Your task to perform on an android device: What's the weather? Image 0: 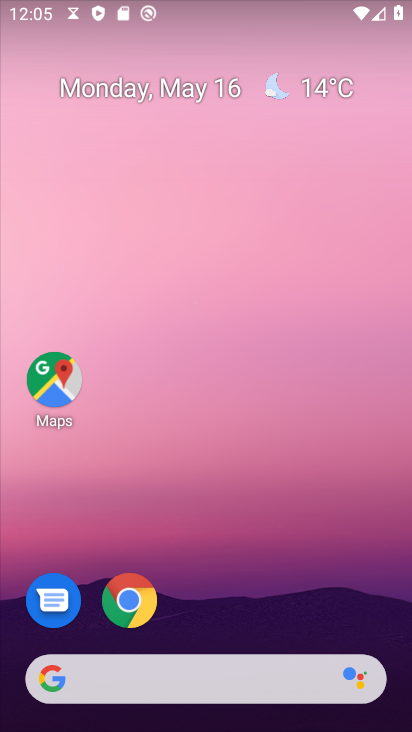
Step 0: drag from (243, 595) to (185, 18)
Your task to perform on an android device: What's the weather? Image 1: 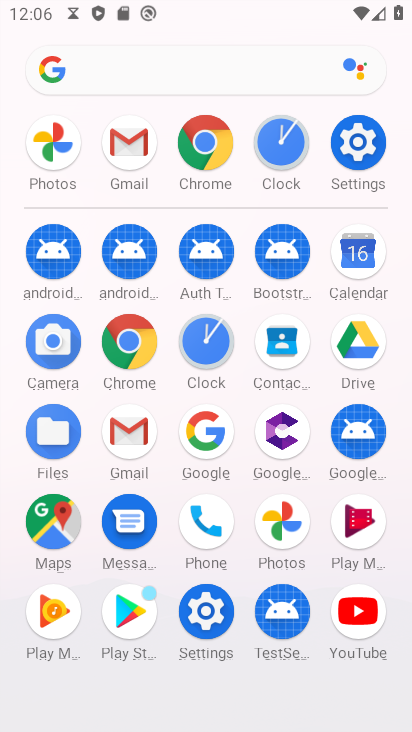
Step 1: drag from (15, 568) to (24, 297)
Your task to perform on an android device: What's the weather? Image 2: 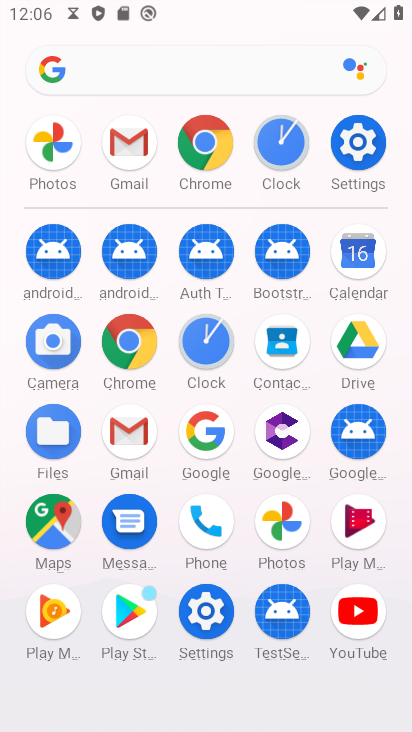
Step 2: click (129, 342)
Your task to perform on an android device: What's the weather? Image 3: 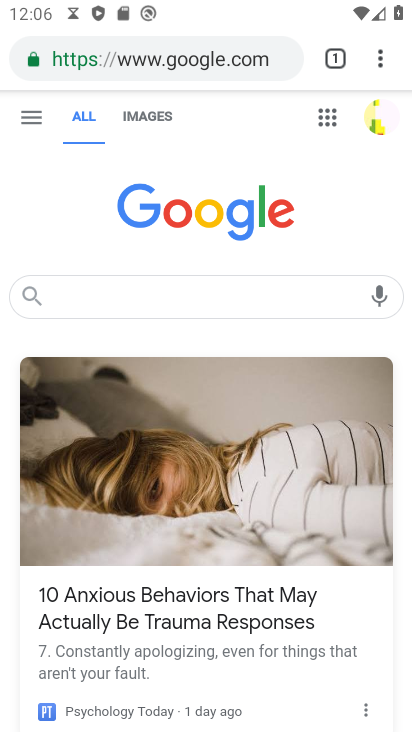
Step 3: click (148, 57)
Your task to perform on an android device: What's the weather? Image 4: 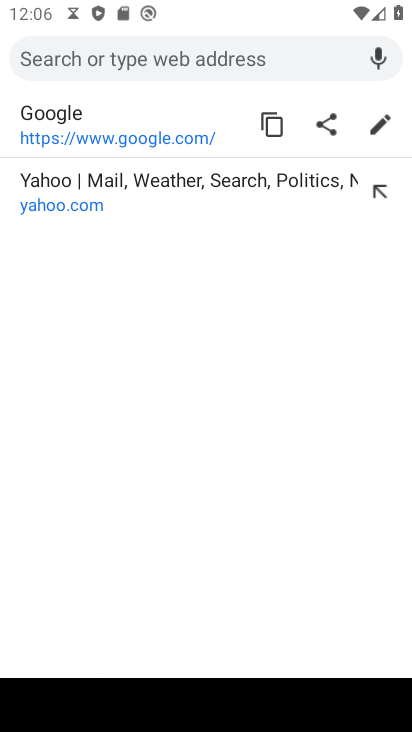
Step 4: type "What's the weather?"
Your task to perform on an android device: What's the weather? Image 5: 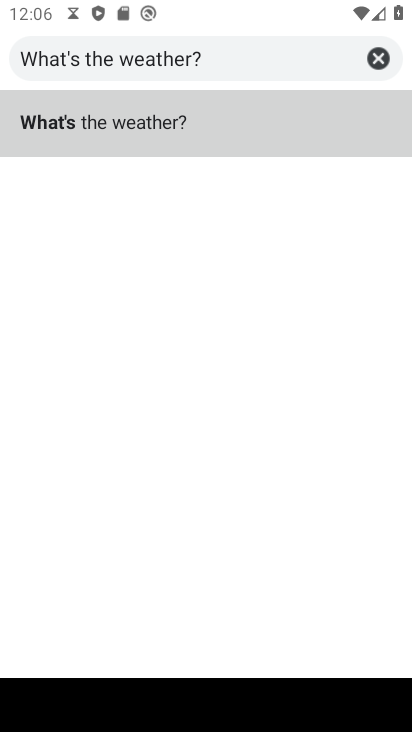
Step 5: click (159, 126)
Your task to perform on an android device: What's the weather? Image 6: 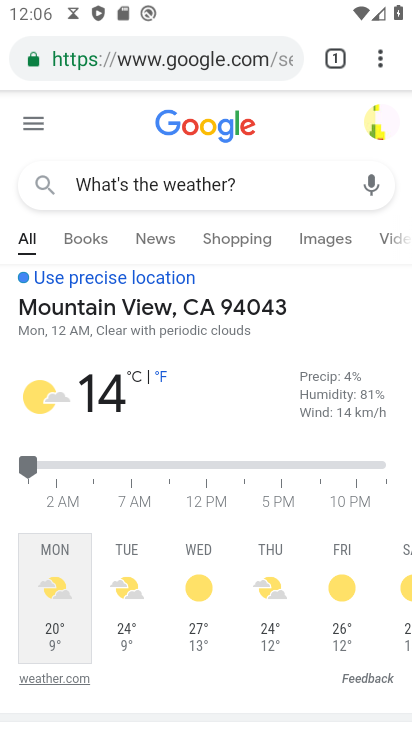
Step 6: task complete